Your task to perform on an android device: change the clock display to analog Image 0: 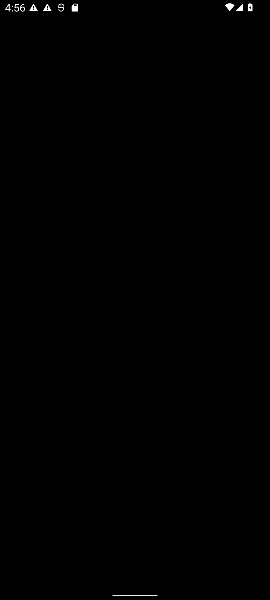
Step 0: press home button
Your task to perform on an android device: change the clock display to analog Image 1: 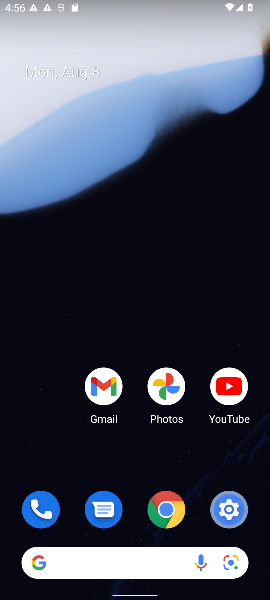
Step 1: drag from (131, 468) to (151, 37)
Your task to perform on an android device: change the clock display to analog Image 2: 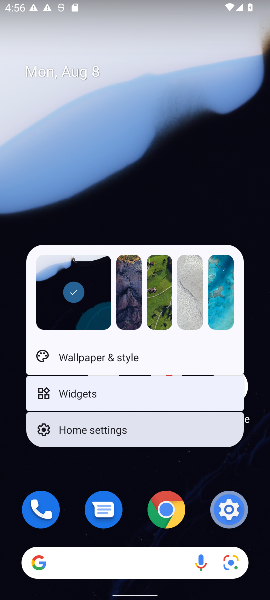
Step 2: click (128, 478)
Your task to perform on an android device: change the clock display to analog Image 3: 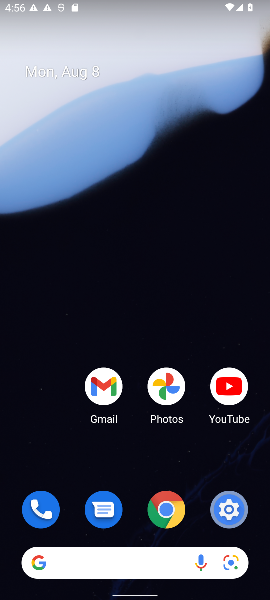
Step 3: drag from (129, 472) to (146, 4)
Your task to perform on an android device: change the clock display to analog Image 4: 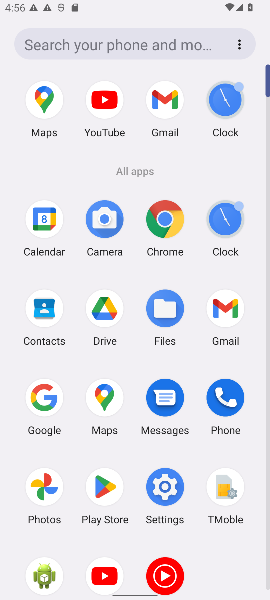
Step 4: click (223, 100)
Your task to perform on an android device: change the clock display to analog Image 5: 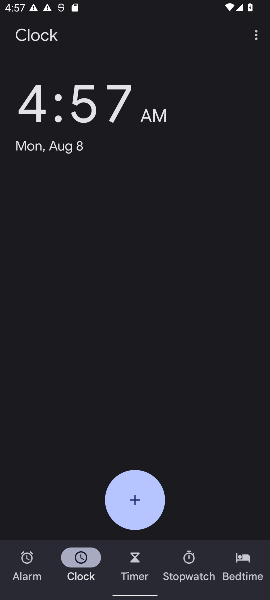
Step 5: click (258, 32)
Your task to perform on an android device: change the clock display to analog Image 6: 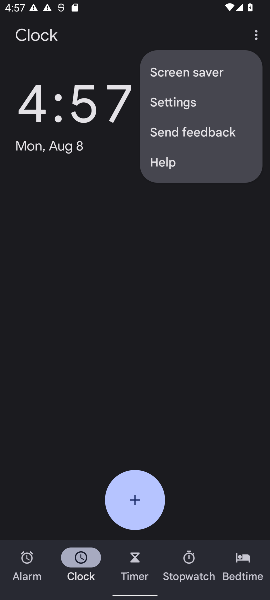
Step 6: click (186, 100)
Your task to perform on an android device: change the clock display to analog Image 7: 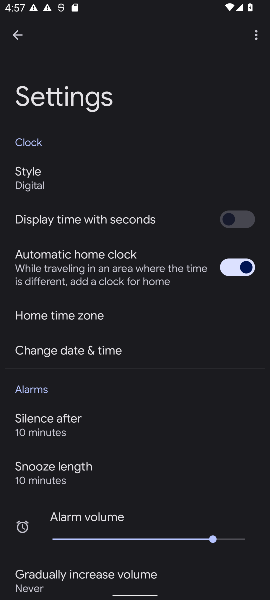
Step 7: click (31, 171)
Your task to perform on an android device: change the clock display to analog Image 8: 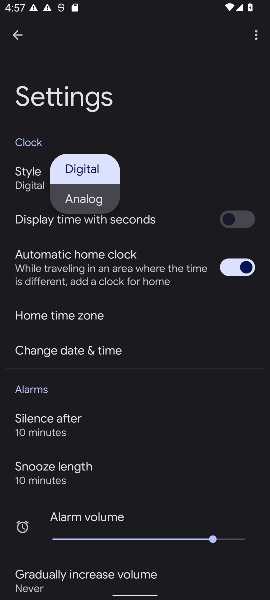
Step 8: click (83, 203)
Your task to perform on an android device: change the clock display to analog Image 9: 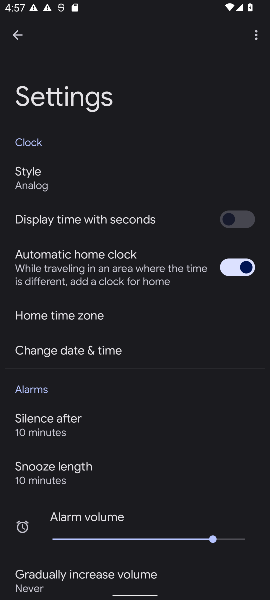
Step 9: task complete